Your task to perform on an android device: Go to Reddit.com Image 0: 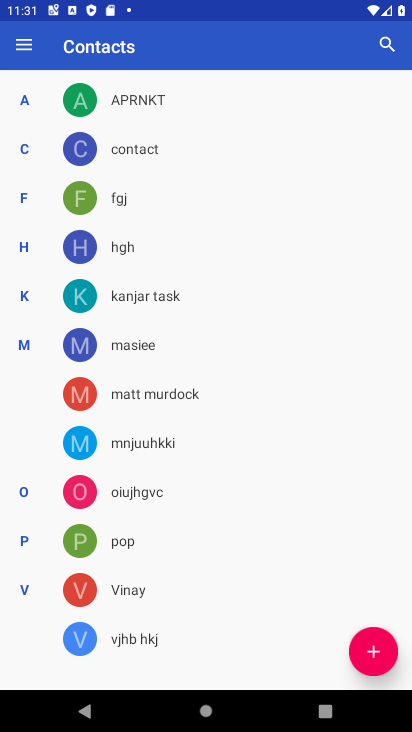
Step 0: press home button
Your task to perform on an android device: Go to Reddit.com Image 1: 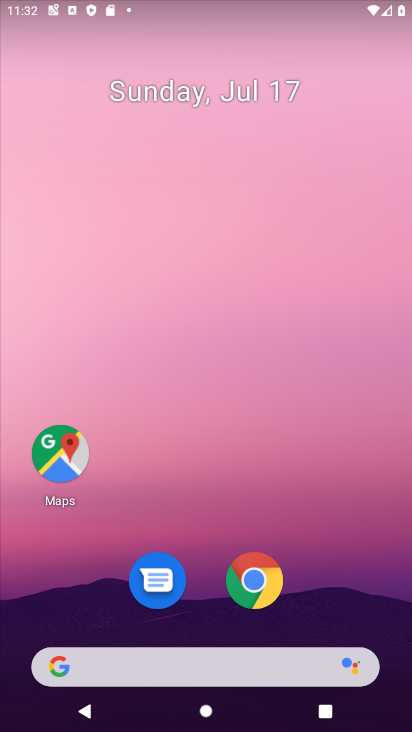
Step 1: drag from (217, 668) to (280, 272)
Your task to perform on an android device: Go to Reddit.com Image 2: 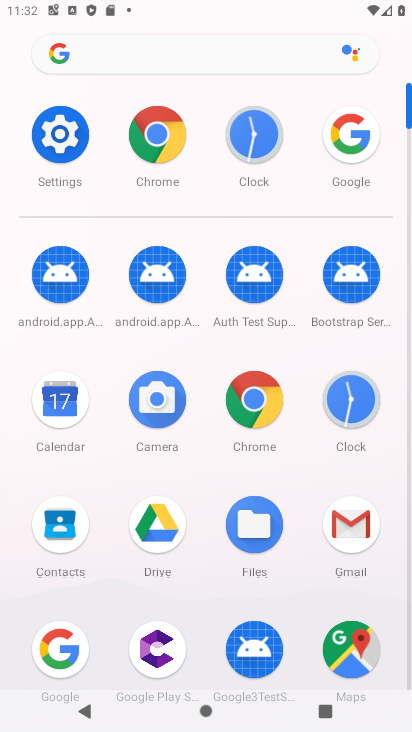
Step 2: click (266, 421)
Your task to perform on an android device: Go to Reddit.com Image 3: 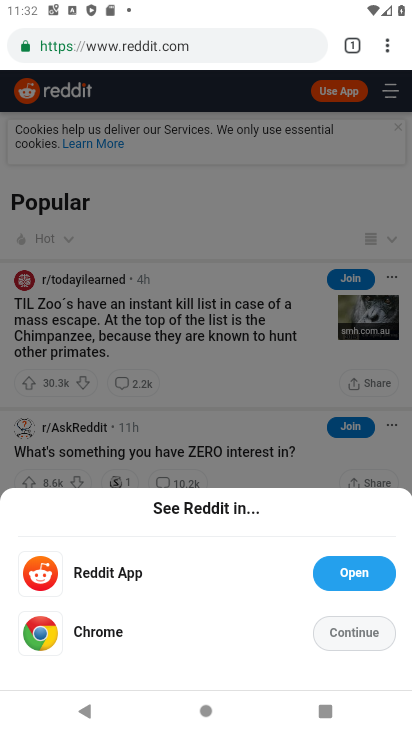
Step 3: task complete